Your task to perform on an android device: Open accessibility settings Image 0: 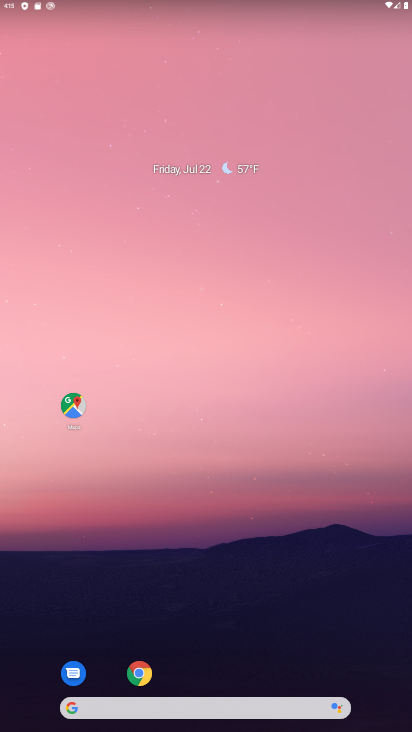
Step 0: drag from (285, 604) to (174, 57)
Your task to perform on an android device: Open accessibility settings Image 1: 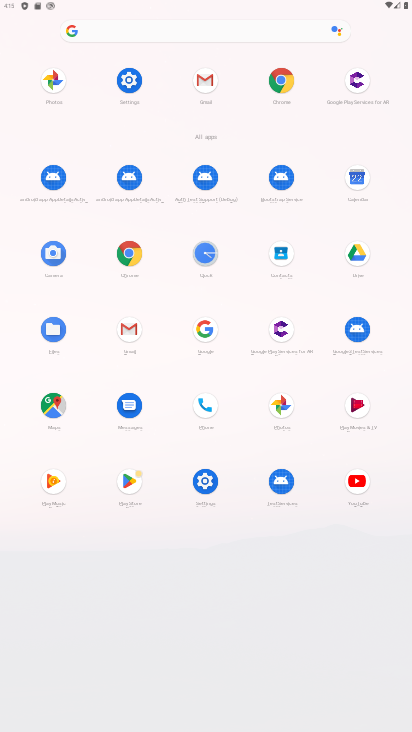
Step 1: click (208, 477)
Your task to perform on an android device: Open accessibility settings Image 2: 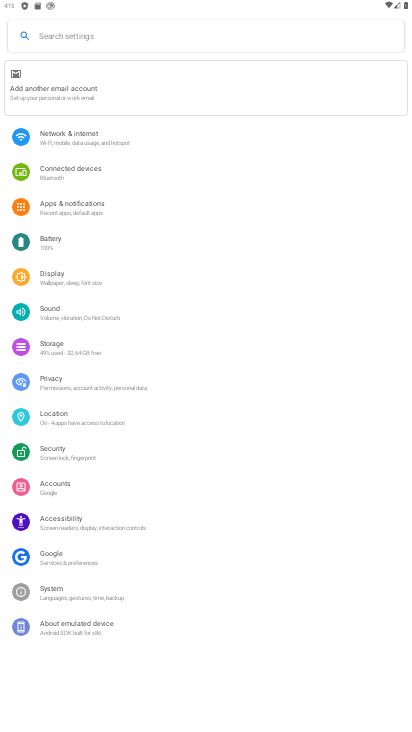
Step 2: click (106, 521)
Your task to perform on an android device: Open accessibility settings Image 3: 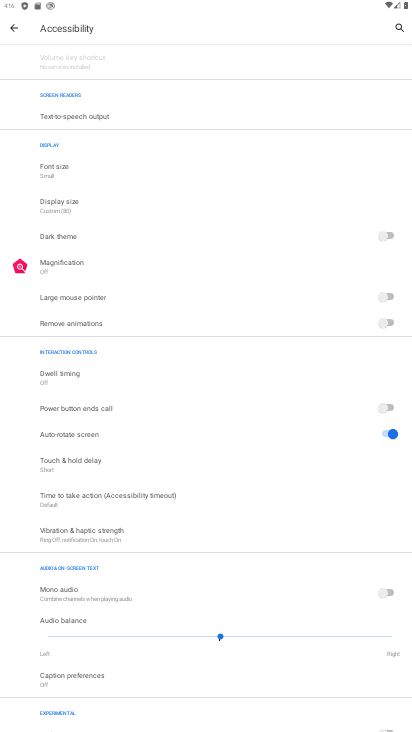
Step 3: task complete